Your task to perform on an android device: Go to Android settings Image 0: 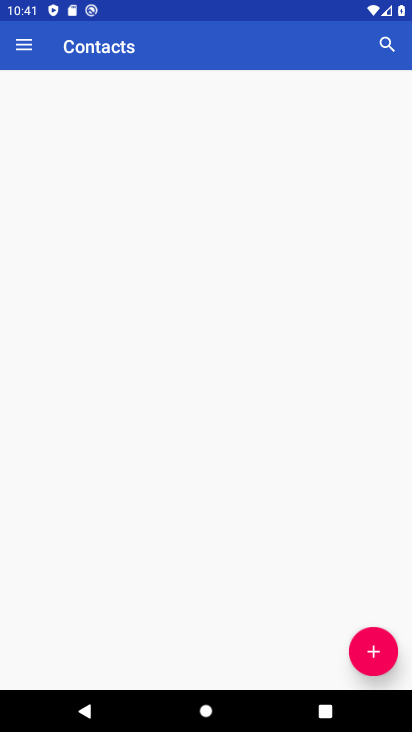
Step 0: press home button
Your task to perform on an android device: Go to Android settings Image 1: 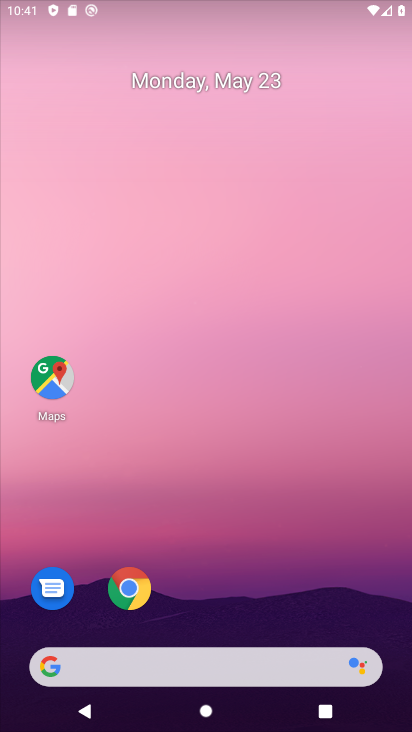
Step 1: drag from (300, 625) to (317, 174)
Your task to perform on an android device: Go to Android settings Image 2: 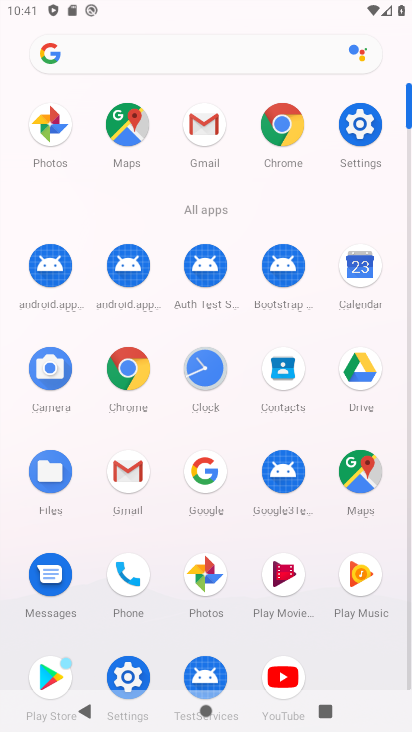
Step 2: click (113, 671)
Your task to perform on an android device: Go to Android settings Image 3: 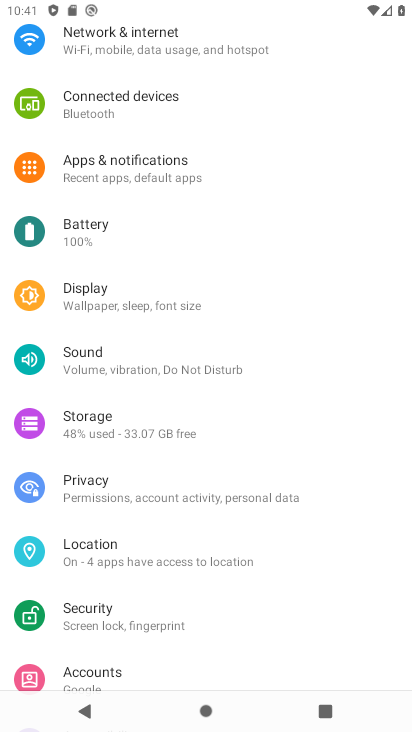
Step 3: drag from (265, 606) to (272, 309)
Your task to perform on an android device: Go to Android settings Image 4: 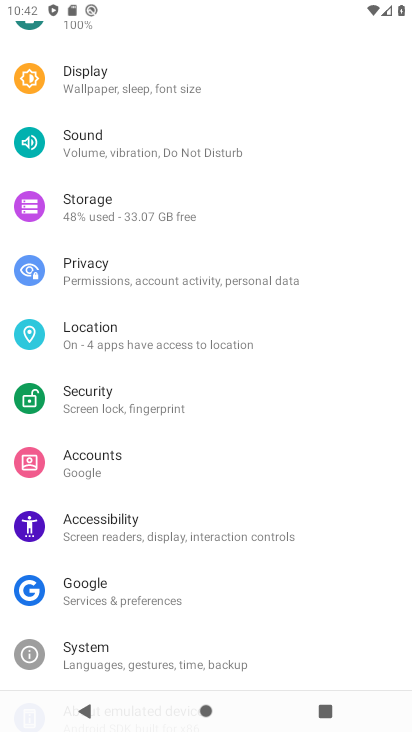
Step 4: drag from (197, 606) to (206, 0)
Your task to perform on an android device: Go to Android settings Image 5: 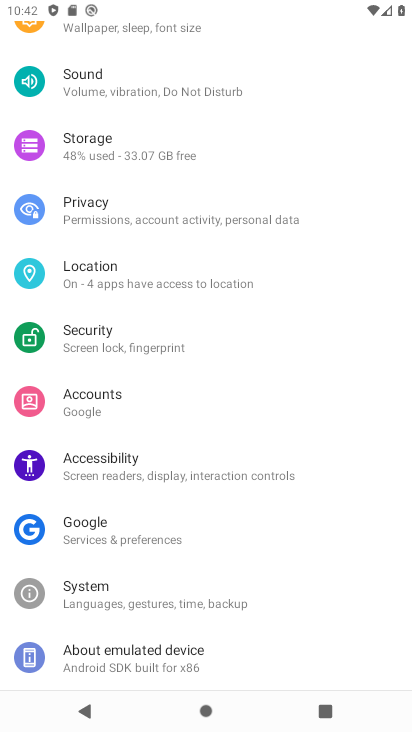
Step 5: drag from (200, 567) to (210, 40)
Your task to perform on an android device: Go to Android settings Image 6: 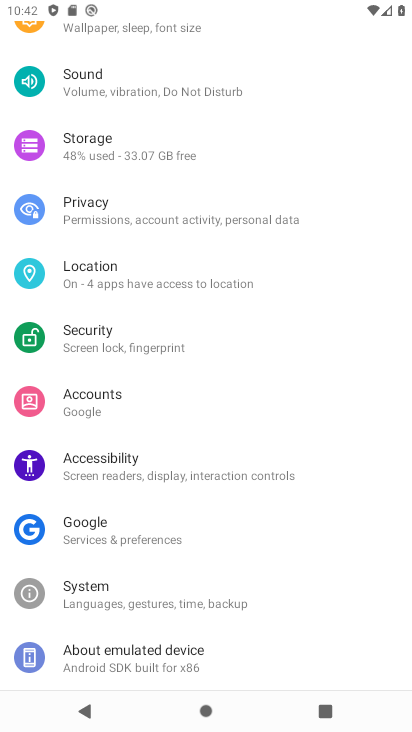
Step 6: click (192, 665)
Your task to perform on an android device: Go to Android settings Image 7: 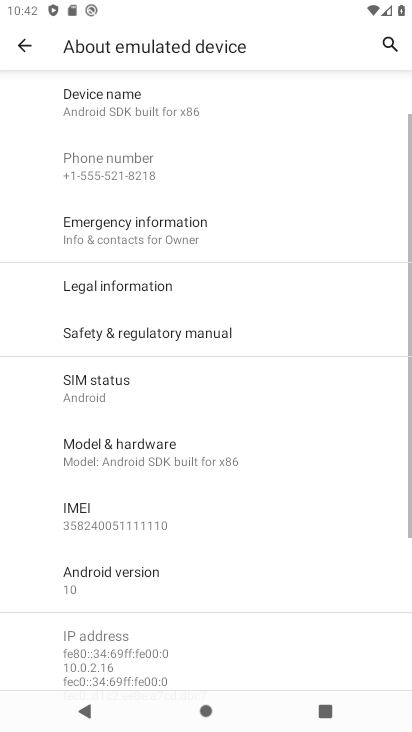
Step 7: task complete